Your task to perform on an android device: Open Google Chrome and click the shortcut for Amazon.com Image 0: 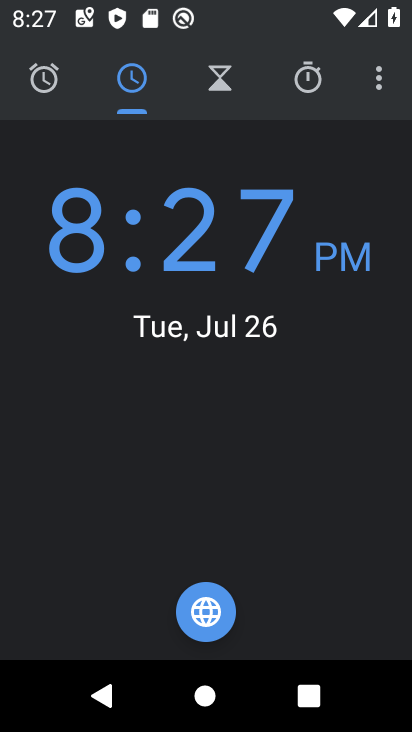
Step 0: press back button
Your task to perform on an android device: Open Google Chrome and click the shortcut for Amazon.com Image 1: 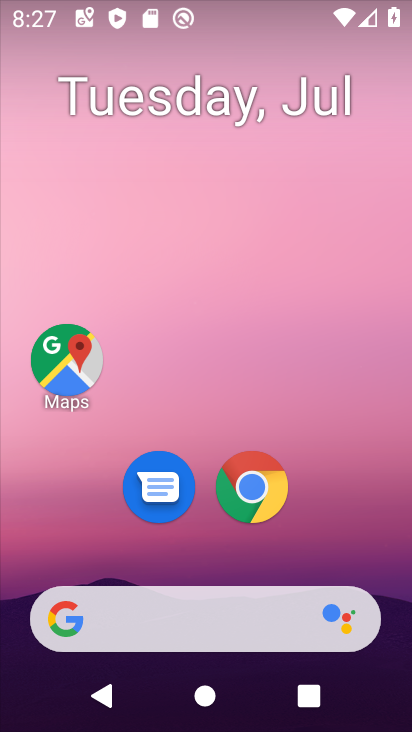
Step 1: click (257, 474)
Your task to perform on an android device: Open Google Chrome and click the shortcut for Amazon.com Image 2: 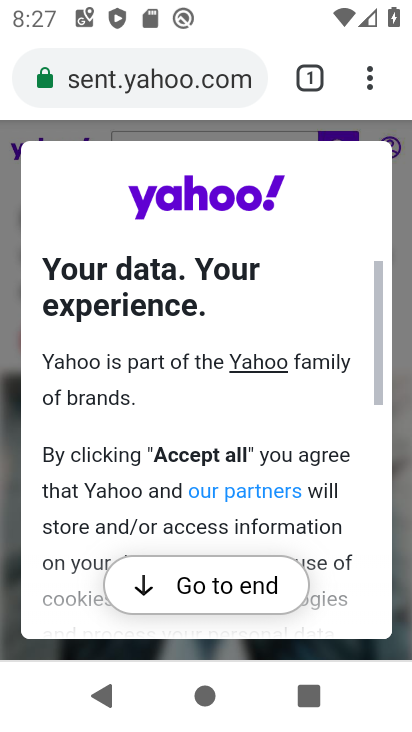
Step 2: click (306, 76)
Your task to perform on an android device: Open Google Chrome and click the shortcut for Amazon.com Image 3: 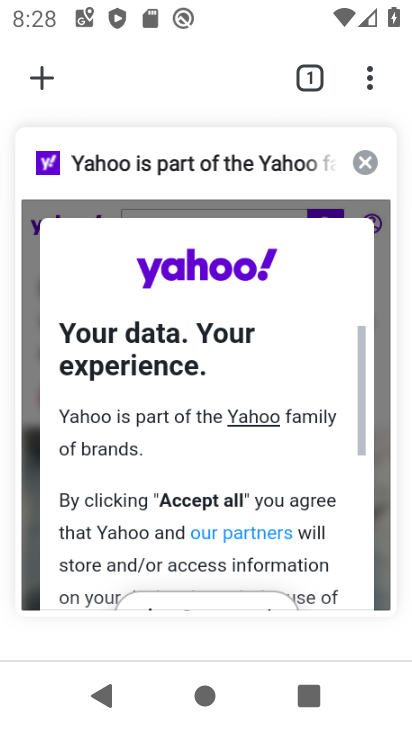
Step 3: click (45, 79)
Your task to perform on an android device: Open Google Chrome and click the shortcut for Amazon.com Image 4: 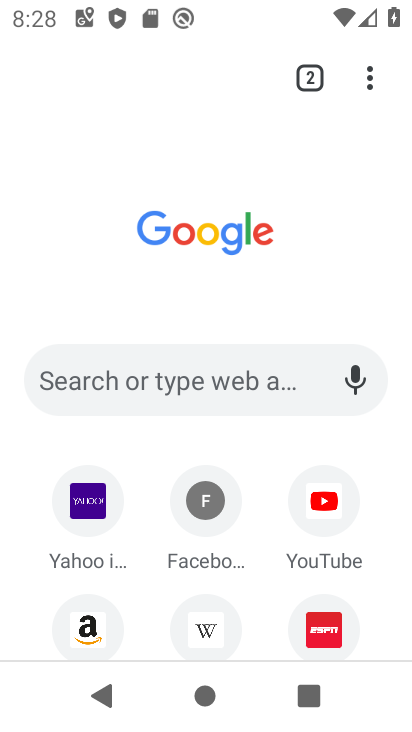
Step 4: click (77, 620)
Your task to perform on an android device: Open Google Chrome and click the shortcut for Amazon.com Image 5: 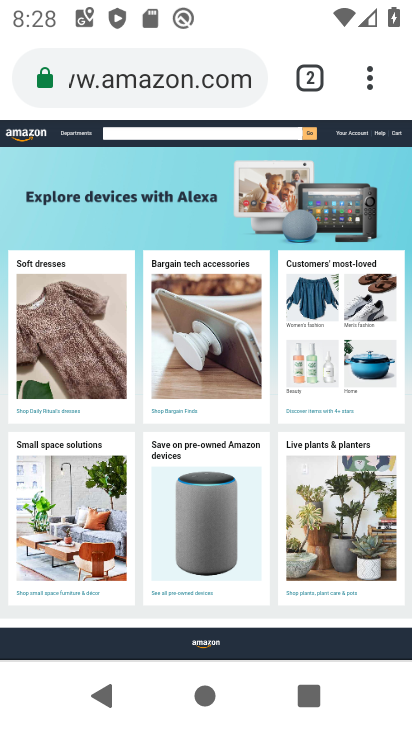
Step 5: task complete